Your task to perform on an android device: Open sound settings Image 0: 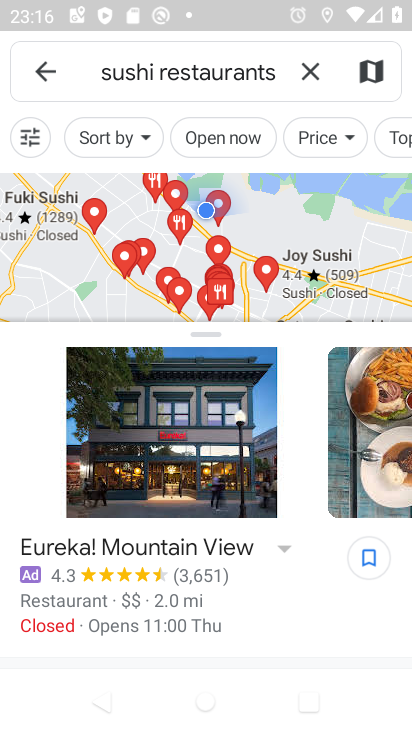
Step 0: press home button
Your task to perform on an android device: Open sound settings Image 1: 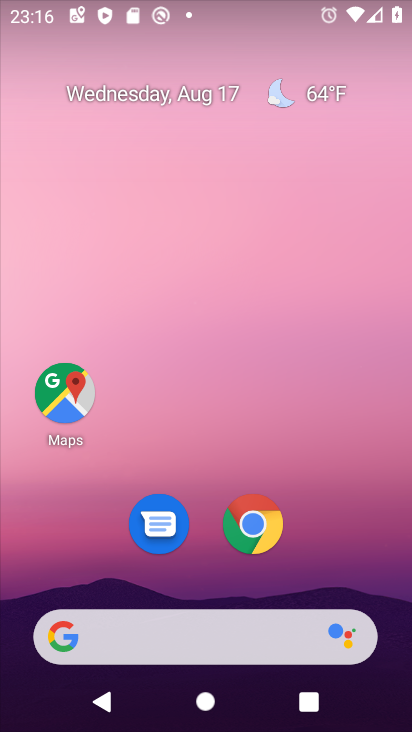
Step 1: drag from (307, 549) to (360, 46)
Your task to perform on an android device: Open sound settings Image 2: 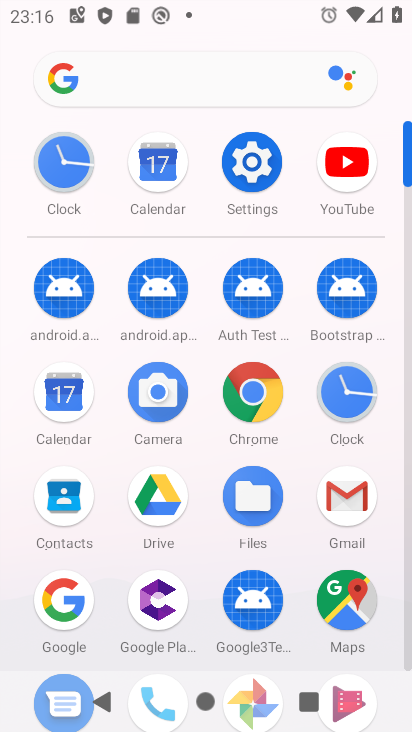
Step 2: click (254, 157)
Your task to perform on an android device: Open sound settings Image 3: 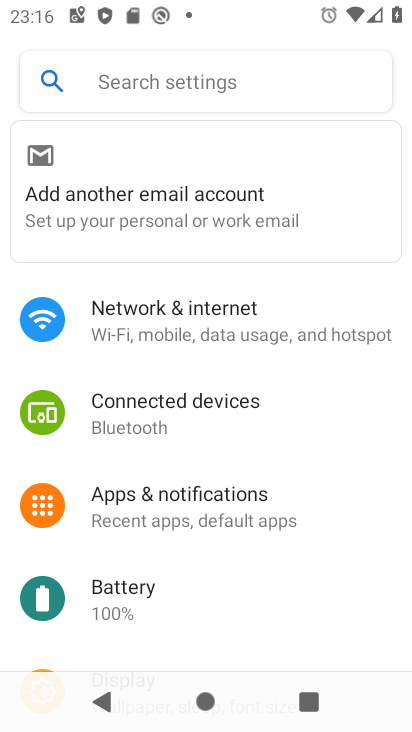
Step 3: click (236, 558)
Your task to perform on an android device: Open sound settings Image 4: 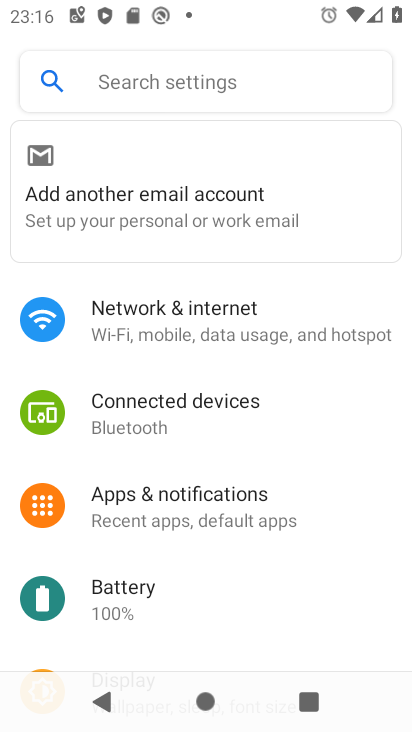
Step 4: drag from (252, 506) to (315, 78)
Your task to perform on an android device: Open sound settings Image 5: 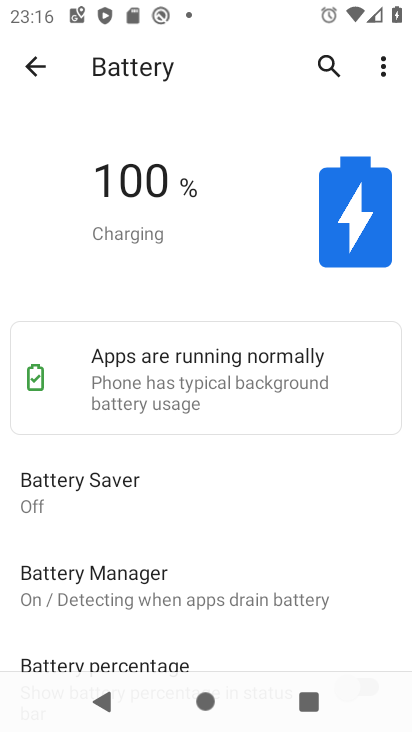
Step 5: click (42, 66)
Your task to perform on an android device: Open sound settings Image 6: 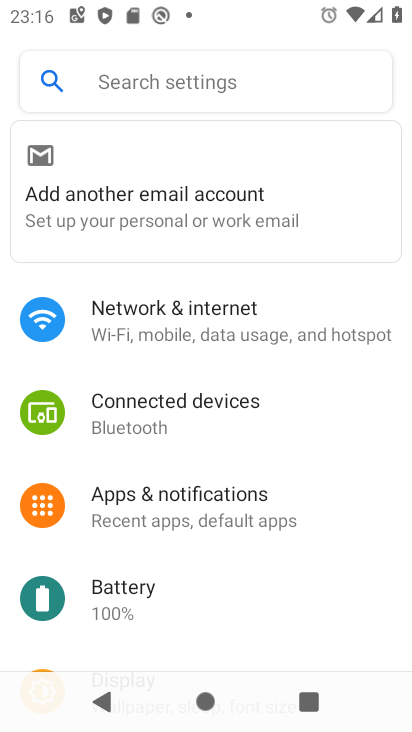
Step 6: drag from (222, 588) to (274, 0)
Your task to perform on an android device: Open sound settings Image 7: 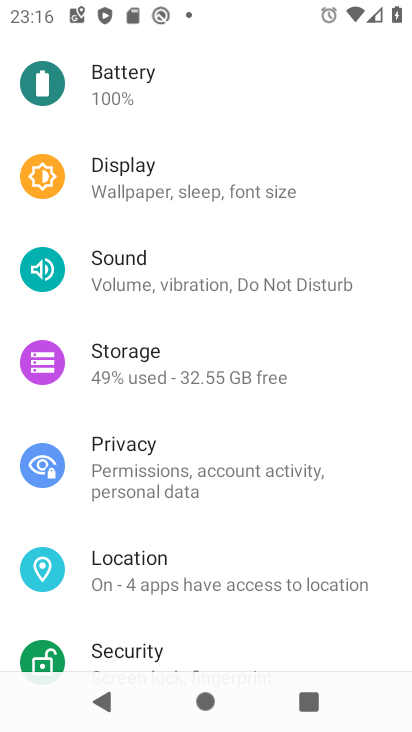
Step 7: click (209, 507)
Your task to perform on an android device: Open sound settings Image 8: 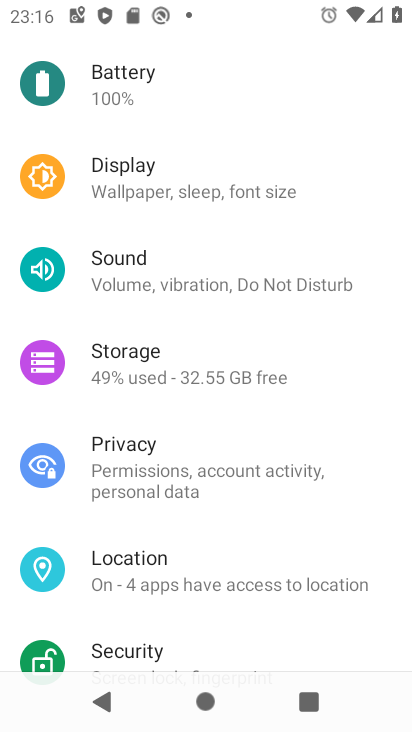
Step 8: drag from (215, 442) to (228, 367)
Your task to perform on an android device: Open sound settings Image 9: 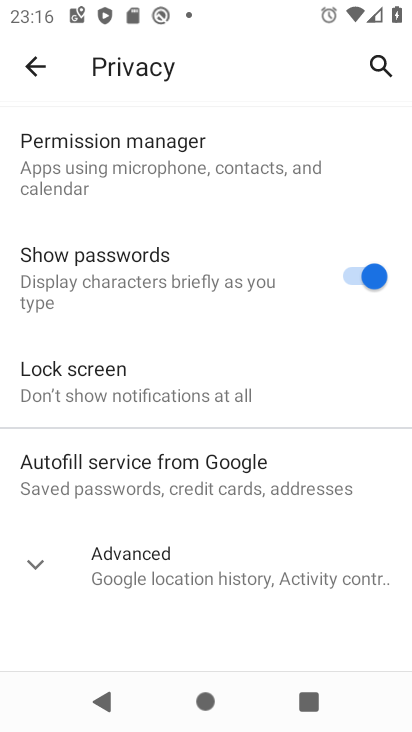
Step 9: click (39, 59)
Your task to perform on an android device: Open sound settings Image 10: 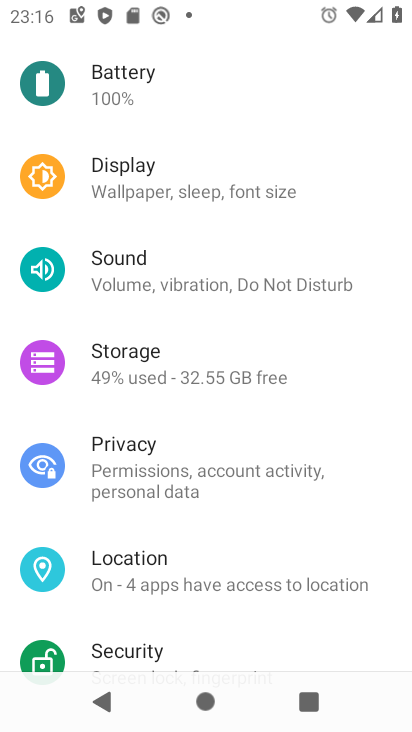
Step 10: click (212, 280)
Your task to perform on an android device: Open sound settings Image 11: 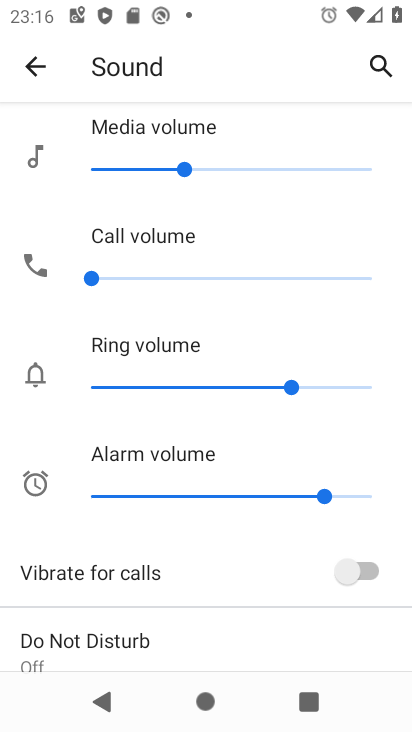
Step 11: task complete